Your task to perform on an android device: Turn off the flashlight Image 0: 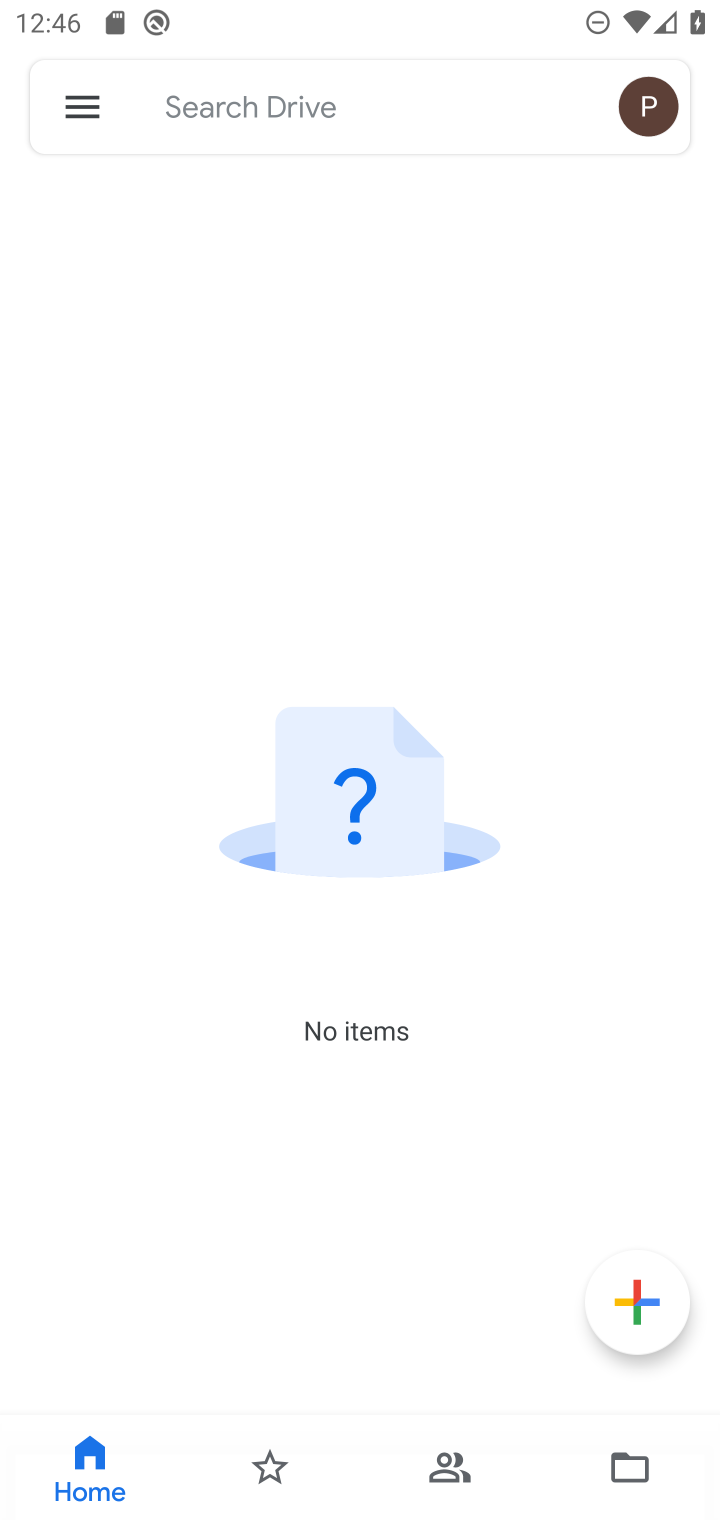
Step 0: press back button
Your task to perform on an android device: Turn off the flashlight Image 1: 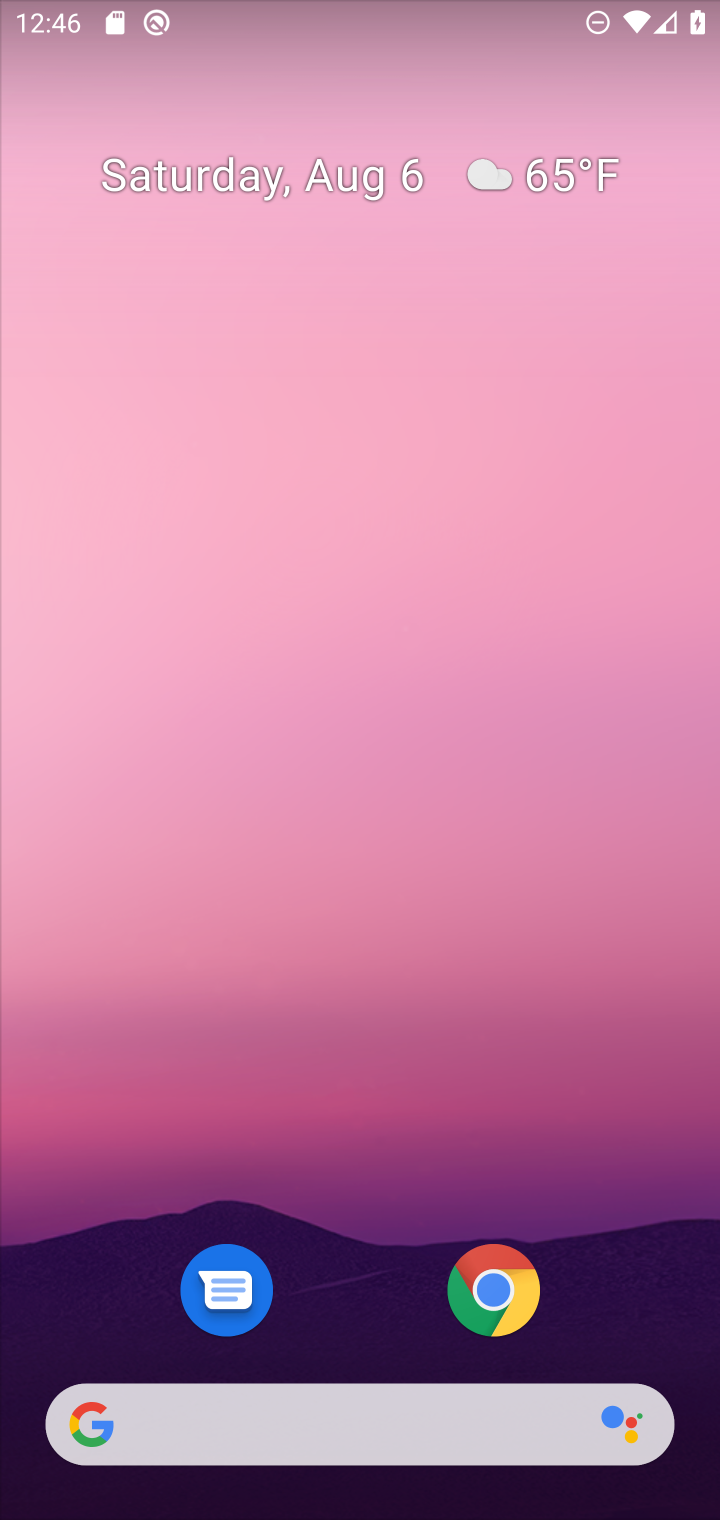
Step 1: drag from (324, 1205) to (289, 165)
Your task to perform on an android device: Turn off the flashlight Image 2: 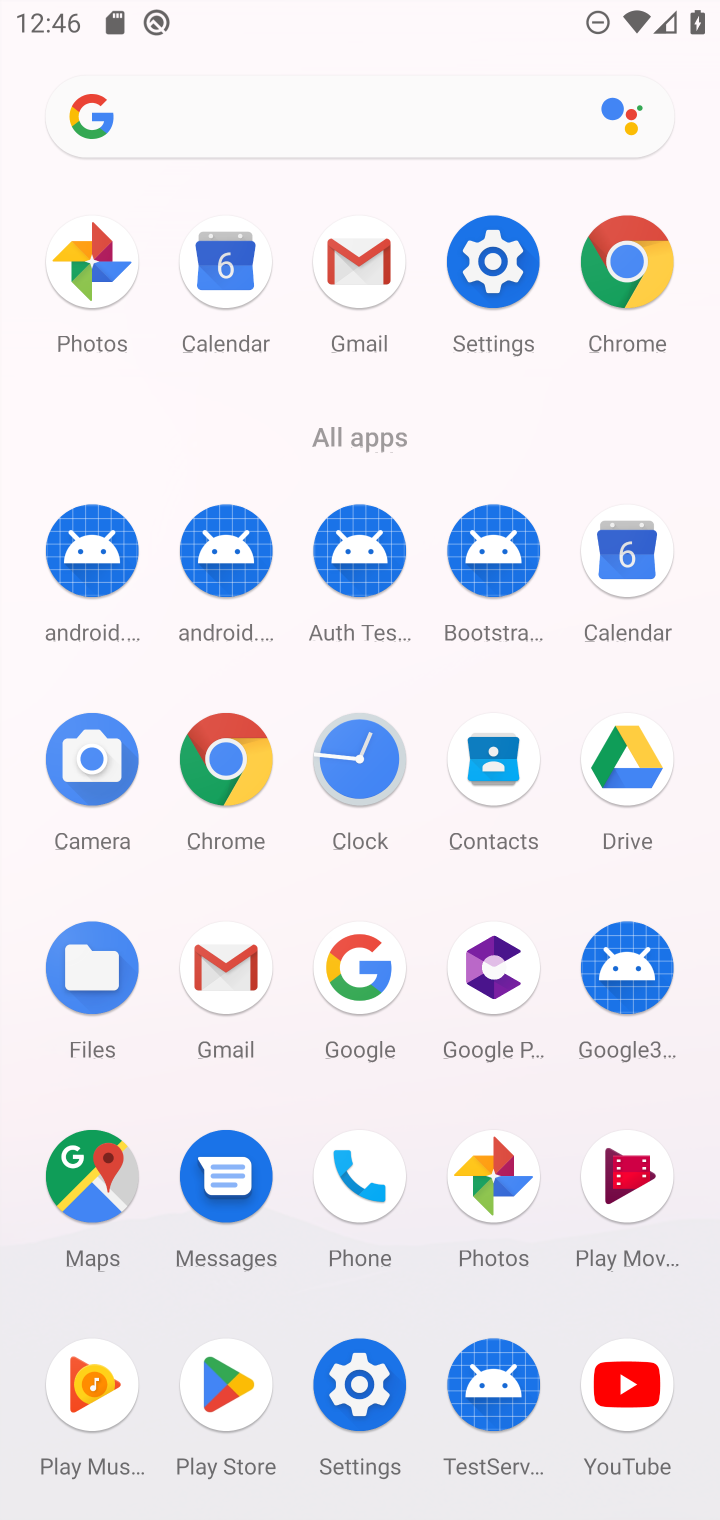
Step 2: click (346, 1401)
Your task to perform on an android device: Turn off the flashlight Image 3: 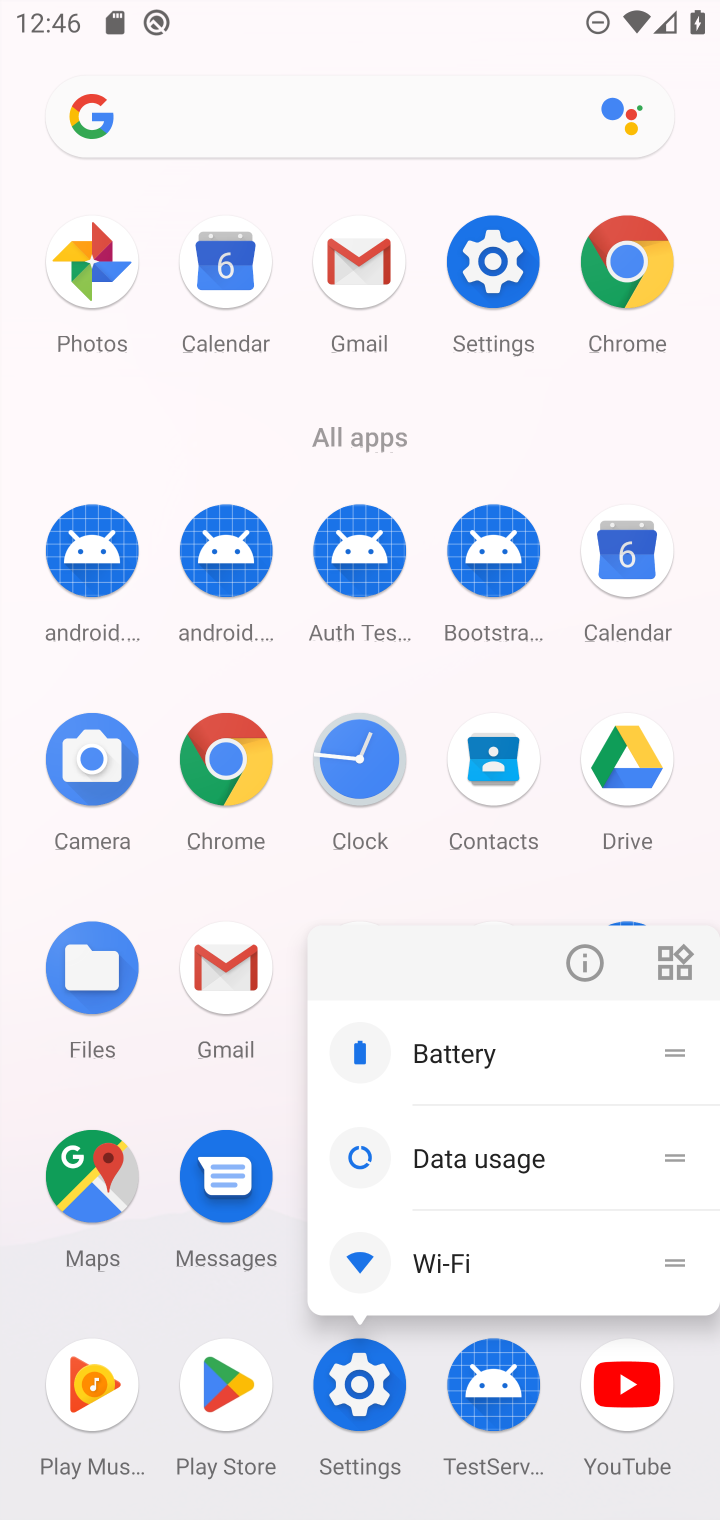
Step 3: click (342, 1401)
Your task to perform on an android device: Turn off the flashlight Image 4: 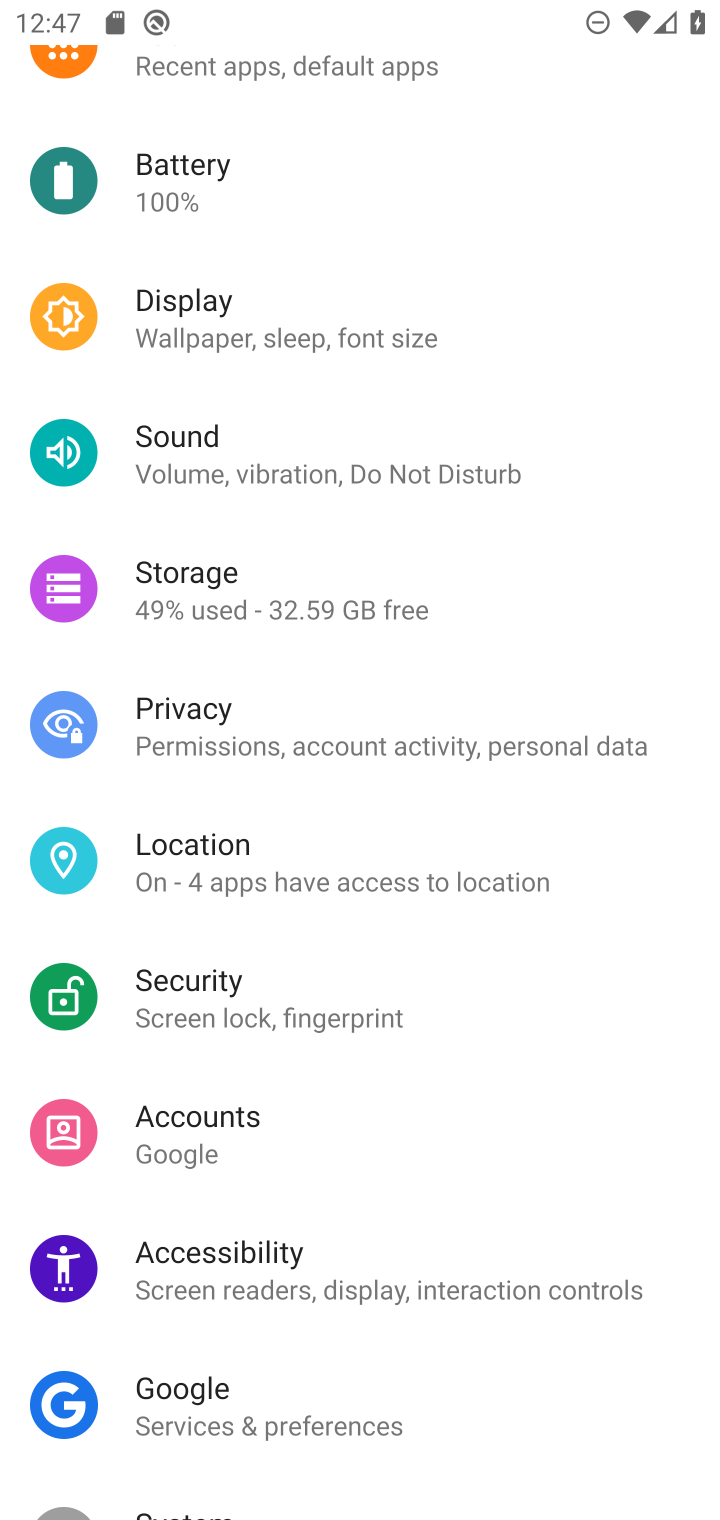
Step 4: click (334, 279)
Your task to perform on an android device: Turn off the flashlight Image 5: 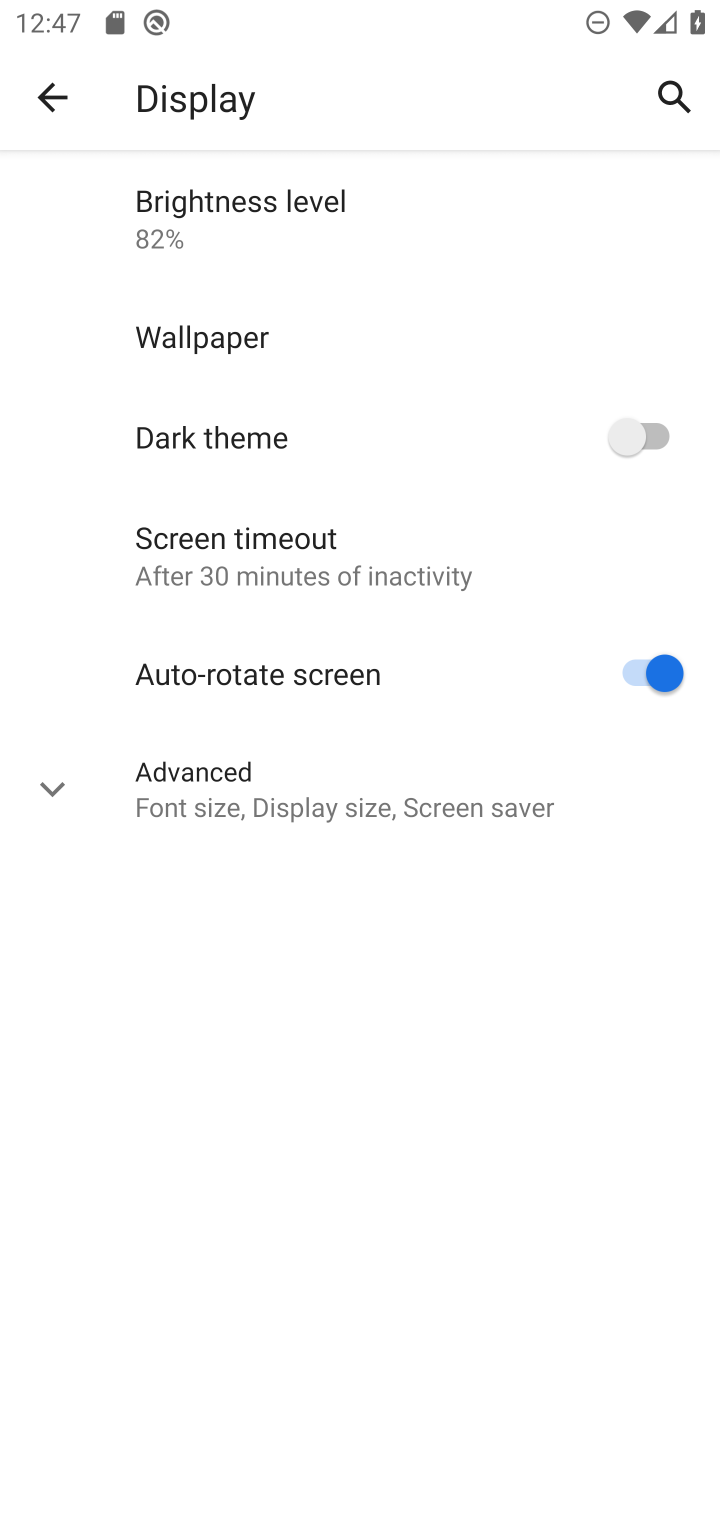
Step 5: task complete